Your task to perform on an android device: Open notification settings Image 0: 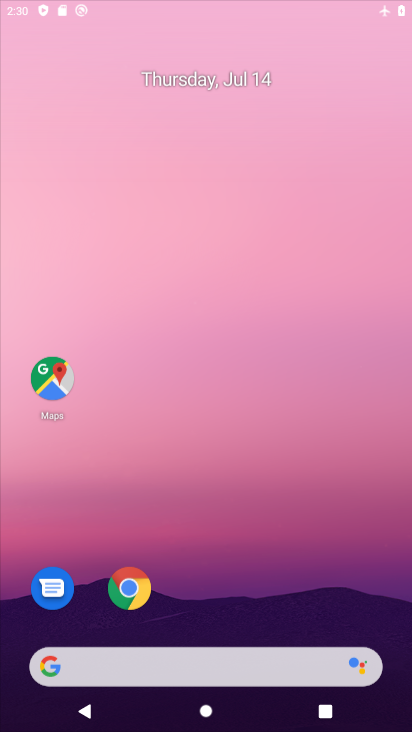
Step 0: click (46, 385)
Your task to perform on an android device: Open notification settings Image 1: 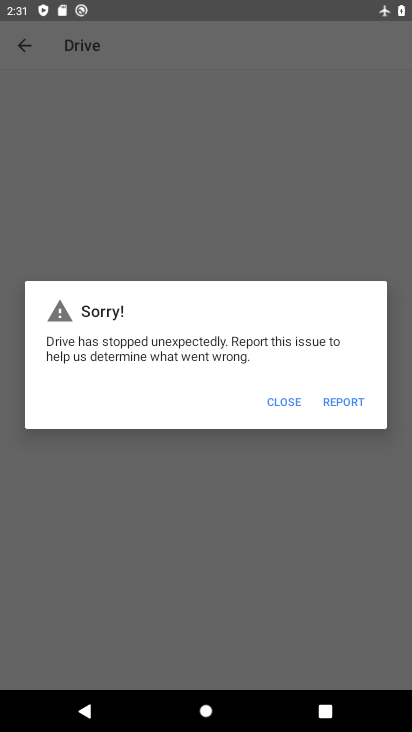
Step 1: press home button
Your task to perform on an android device: Open notification settings Image 2: 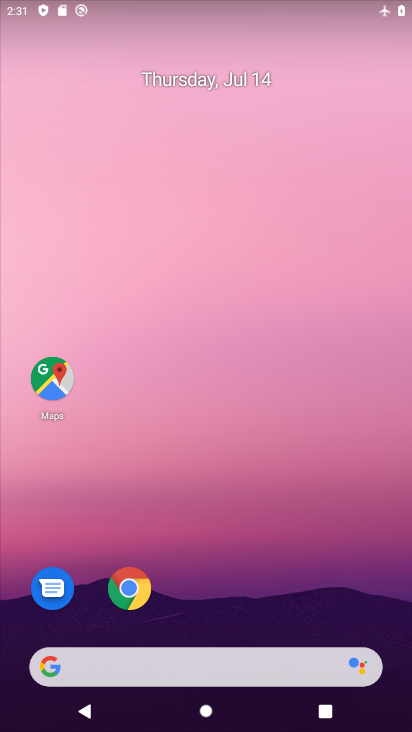
Step 2: drag from (201, 653) to (137, 138)
Your task to perform on an android device: Open notification settings Image 3: 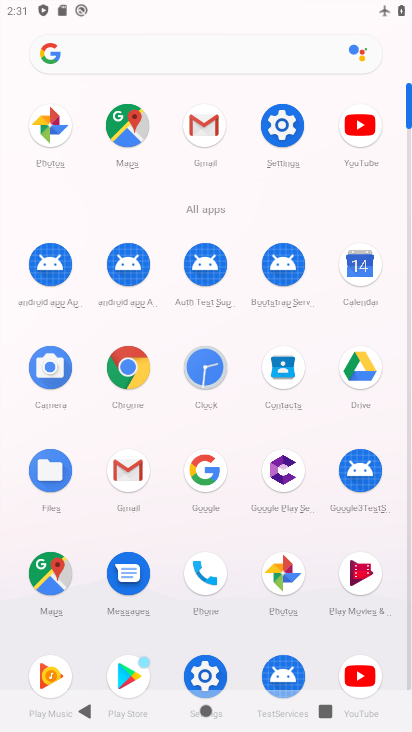
Step 3: click (284, 126)
Your task to perform on an android device: Open notification settings Image 4: 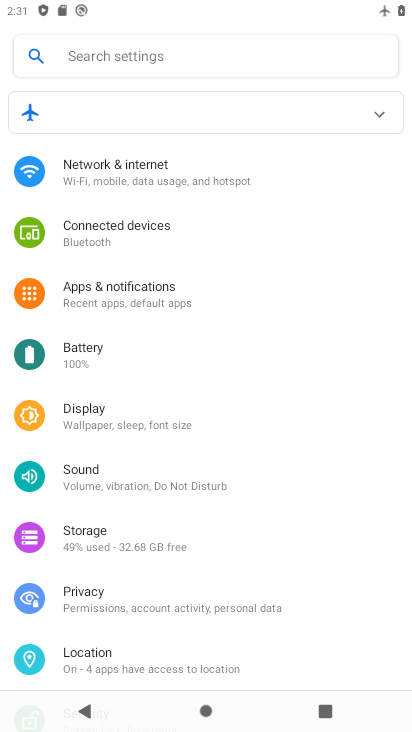
Step 4: click (121, 283)
Your task to perform on an android device: Open notification settings Image 5: 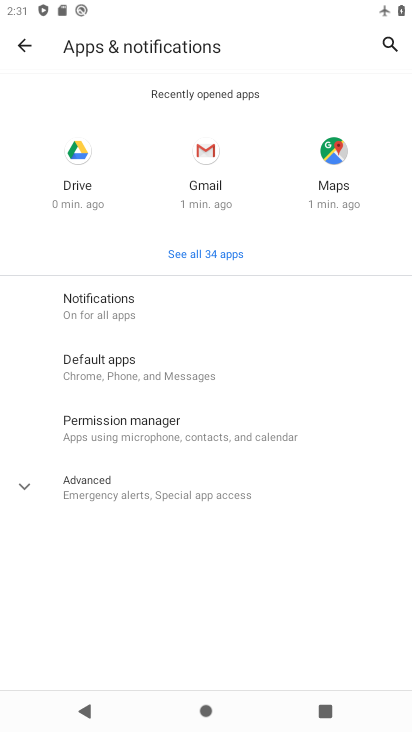
Step 5: click (105, 315)
Your task to perform on an android device: Open notification settings Image 6: 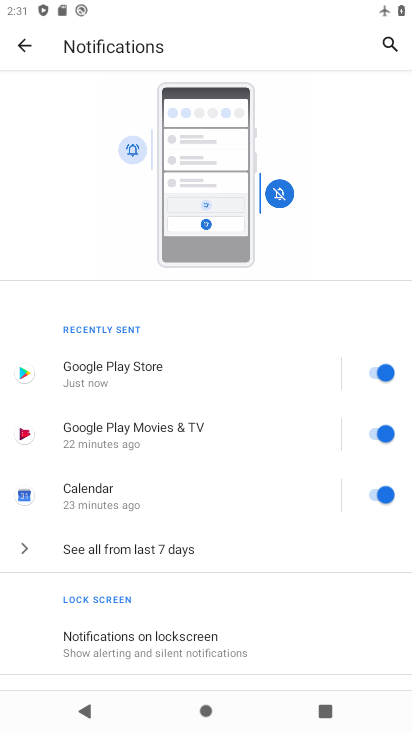
Step 6: task complete